Your task to perform on an android device: turn off translation in the chrome app Image 0: 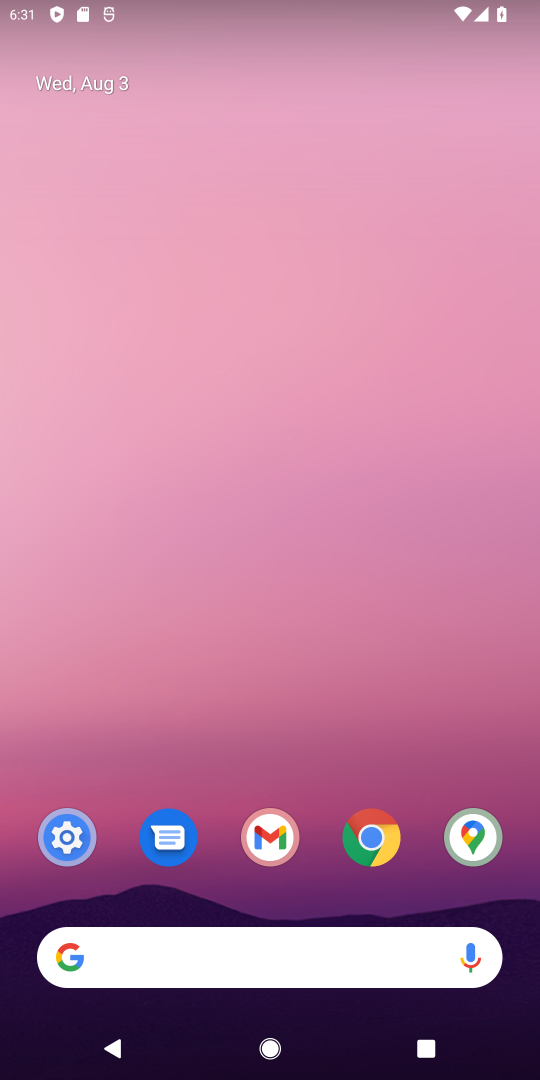
Step 0: press home button
Your task to perform on an android device: turn off translation in the chrome app Image 1: 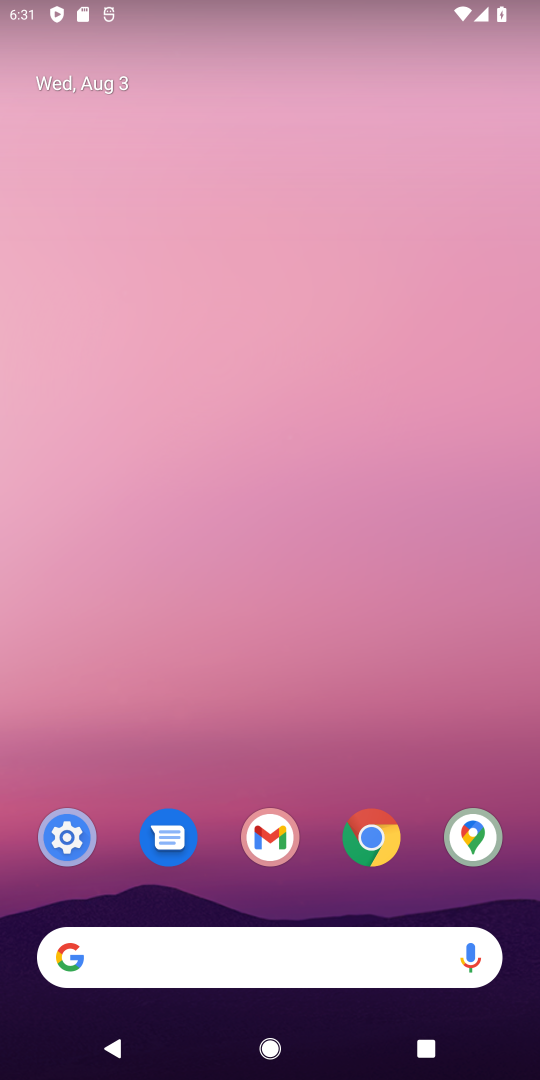
Step 1: click (390, 837)
Your task to perform on an android device: turn off translation in the chrome app Image 2: 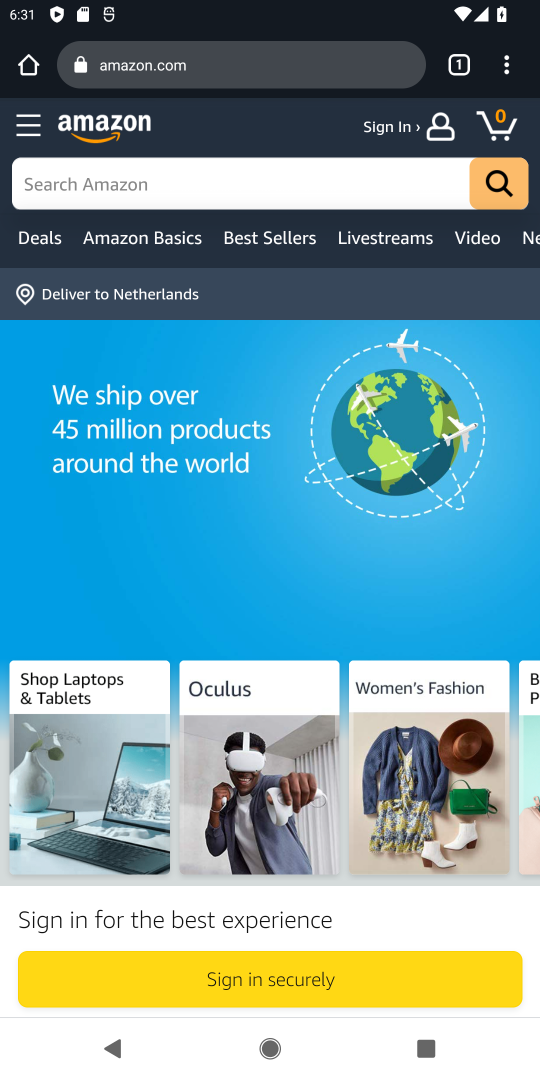
Step 2: drag from (502, 69) to (347, 857)
Your task to perform on an android device: turn off translation in the chrome app Image 3: 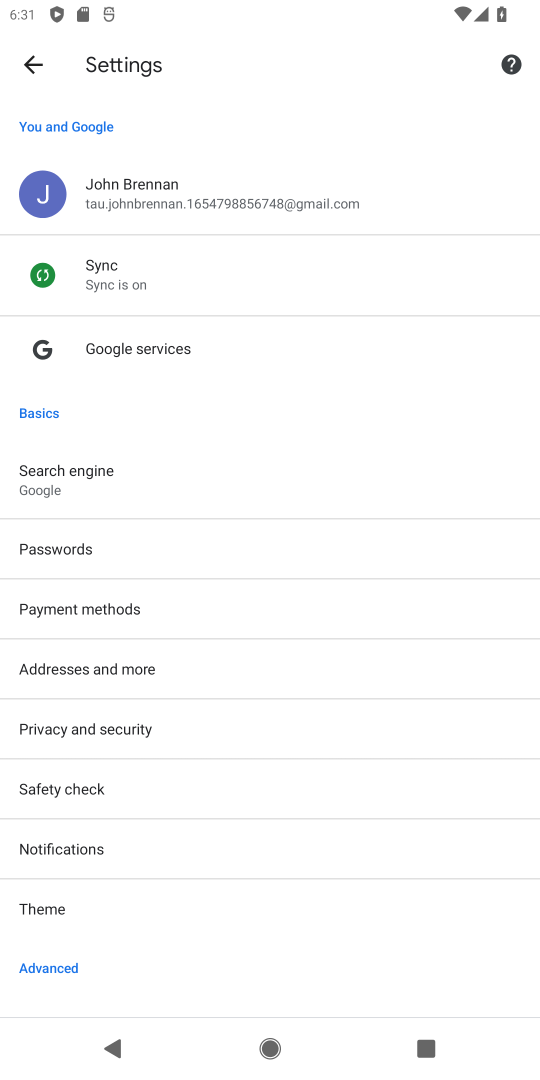
Step 3: drag from (341, 947) to (399, 495)
Your task to perform on an android device: turn off translation in the chrome app Image 4: 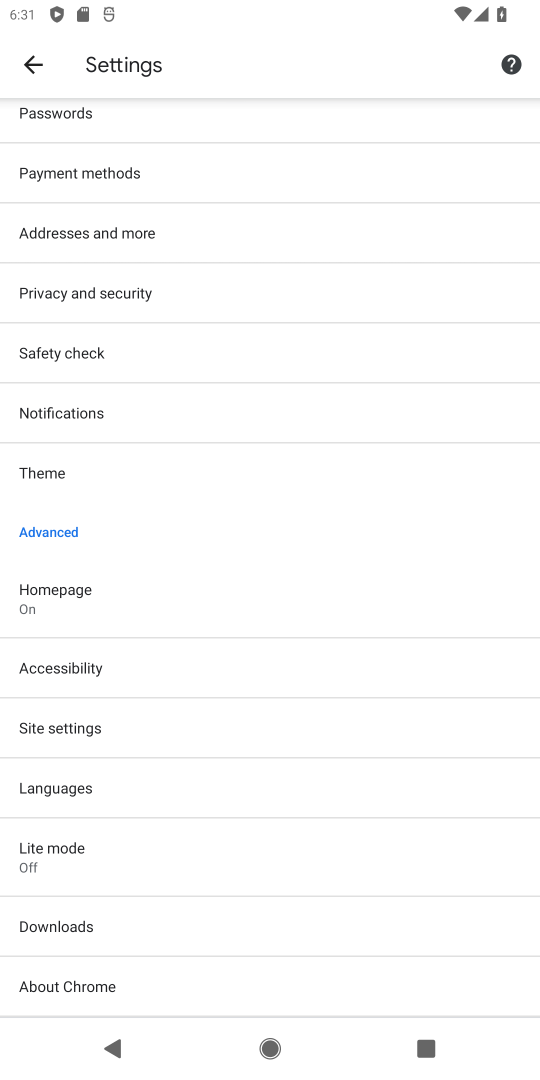
Step 4: click (129, 779)
Your task to perform on an android device: turn off translation in the chrome app Image 5: 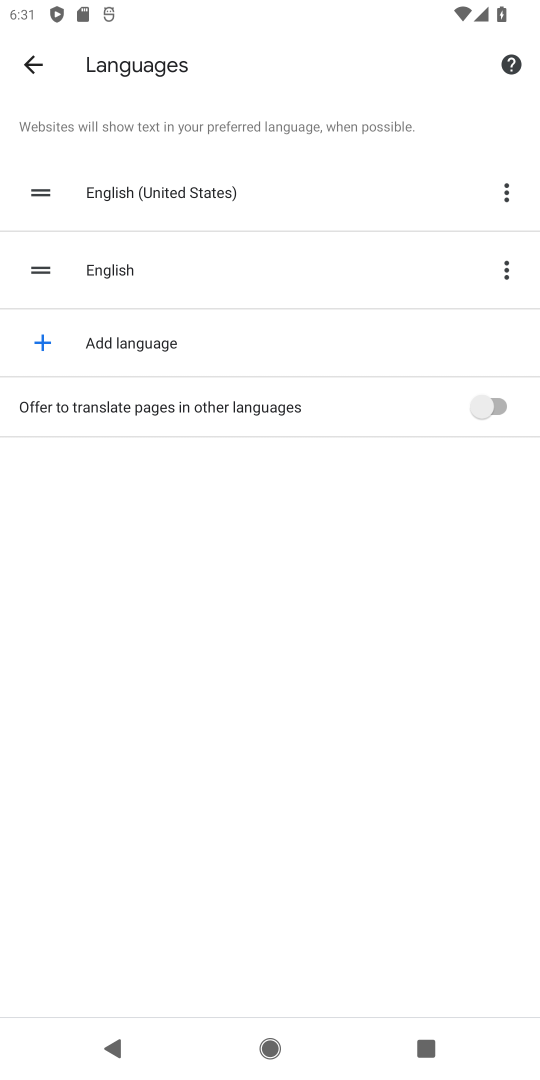
Step 5: task complete